Your task to perform on an android device: Search for Mexican restaurants on Maps Image 0: 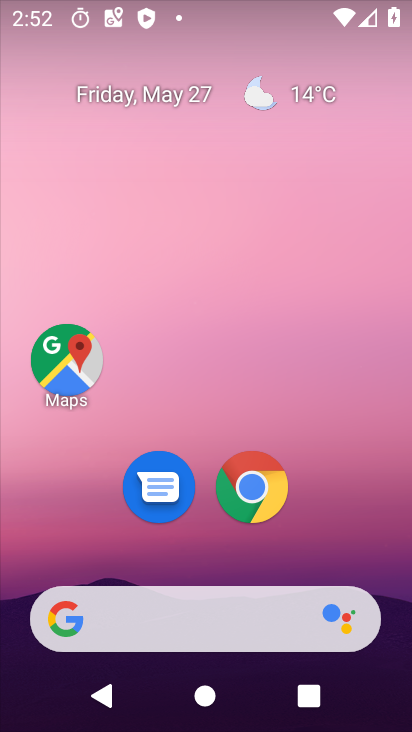
Step 0: drag from (329, 516) to (301, 110)
Your task to perform on an android device: Search for Mexican restaurants on Maps Image 1: 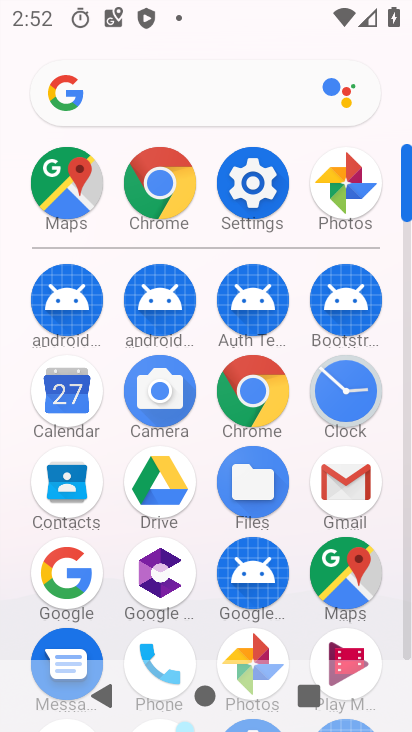
Step 1: click (368, 566)
Your task to perform on an android device: Search for Mexican restaurants on Maps Image 2: 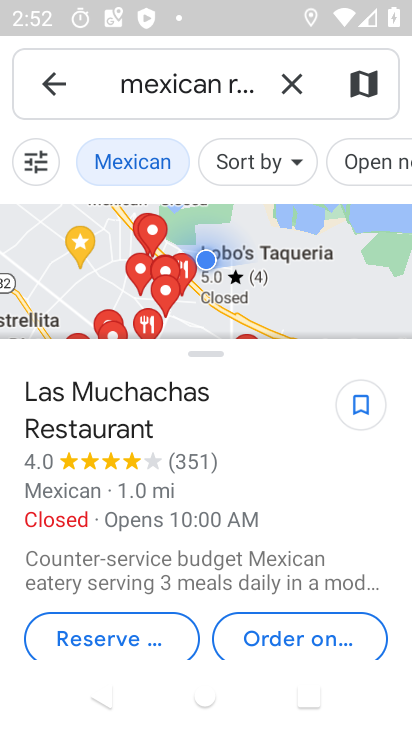
Step 2: task complete